Your task to perform on an android device: Clear the shopping cart on amazon. Add "macbook pro" to the cart on amazon, then select checkout. Image 0: 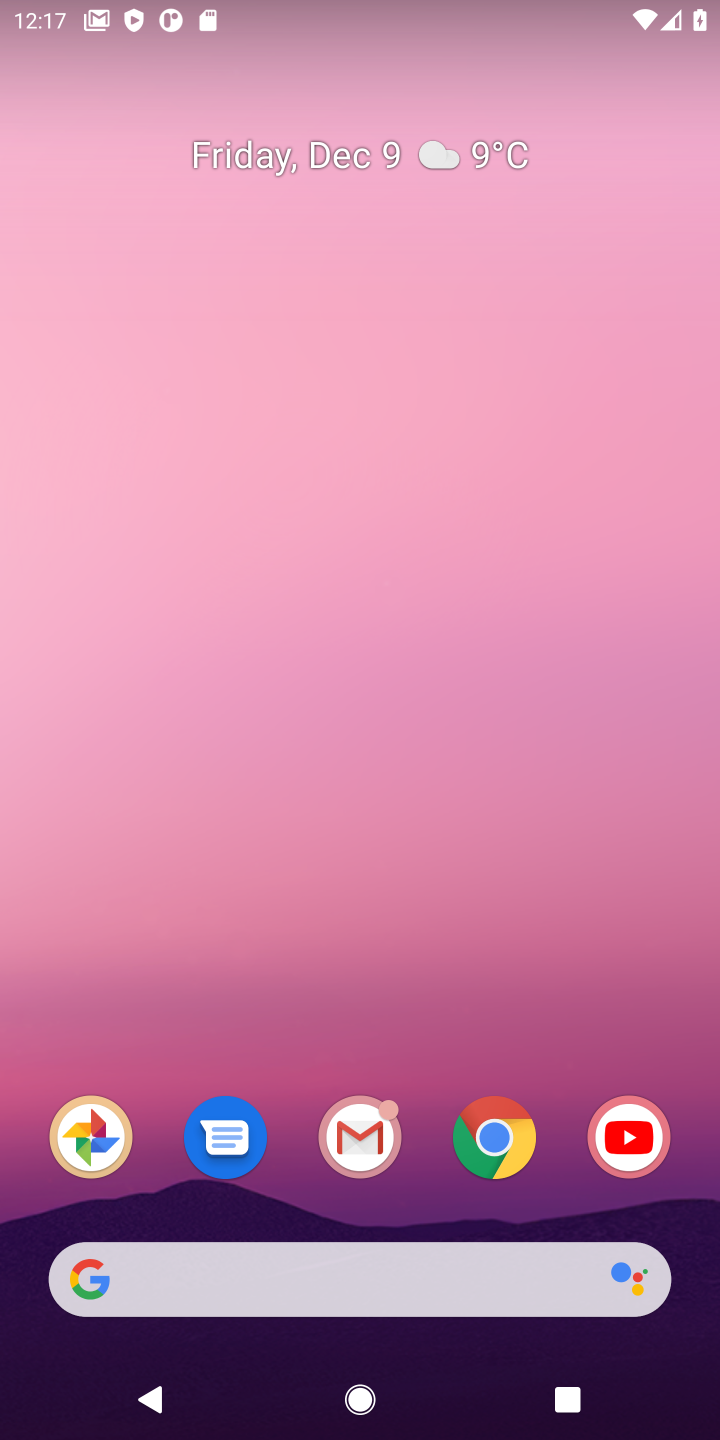
Step 0: click (262, 1284)
Your task to perform on an android device: Clear the shopping cart on amazon. Add "macbook pro" to the cart on amazon, then select checkout. Image 1: 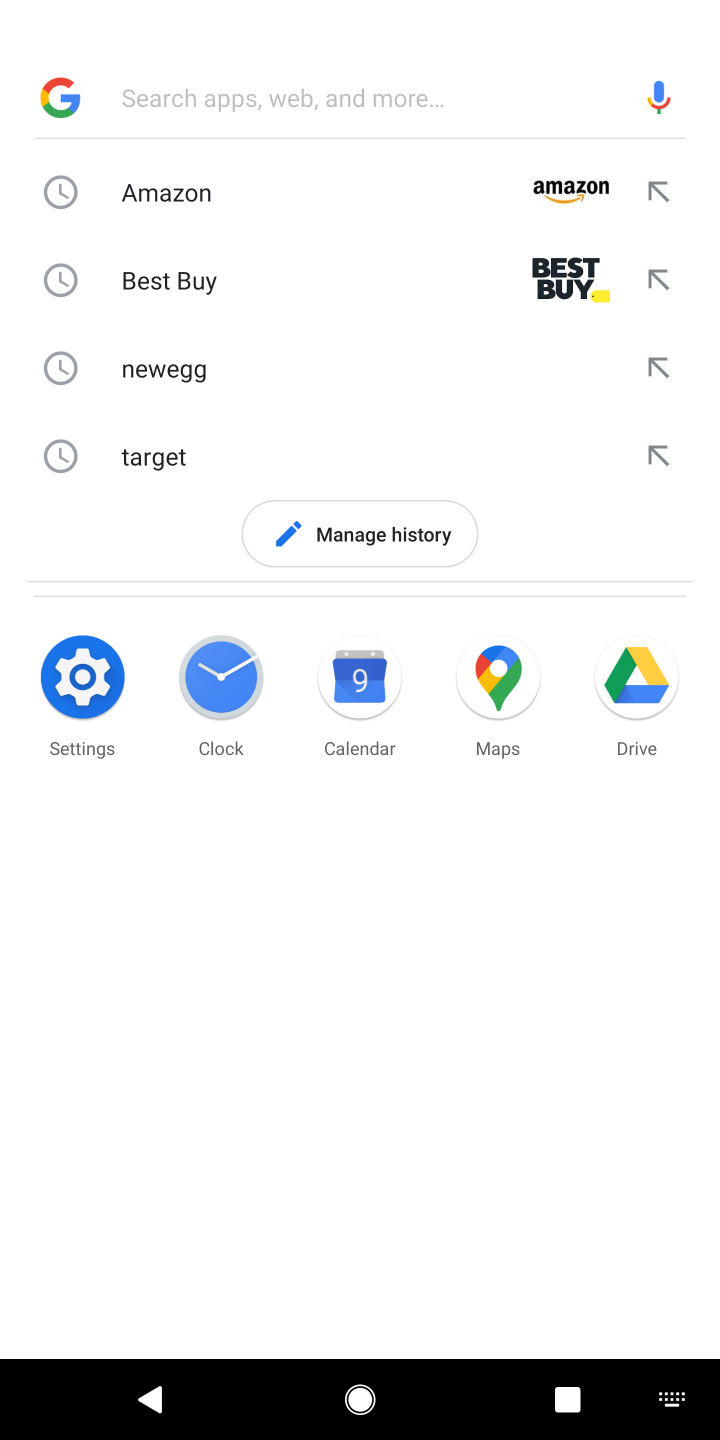
Step 1: click (424, 210)
Your task to perform on an android device: Clear the shopping cart on amazon. Add "macbook pro" to the cart on amazon, then select checkout. Image 2: 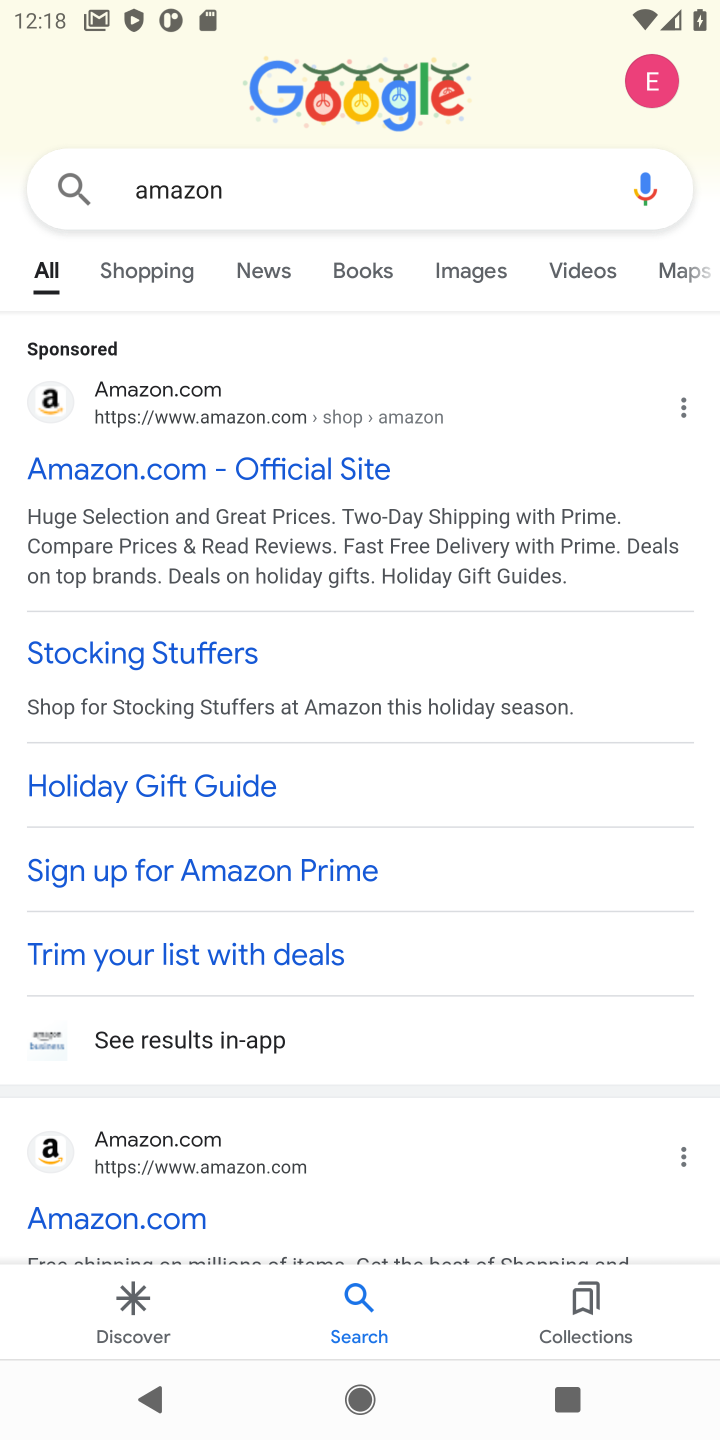
Step 2: click (154, 456)
Your task to perform on an android device: Clear the shopping cart on amazon. Add "macbook pro" to the cart on amazon, then select checkout. Image 3: 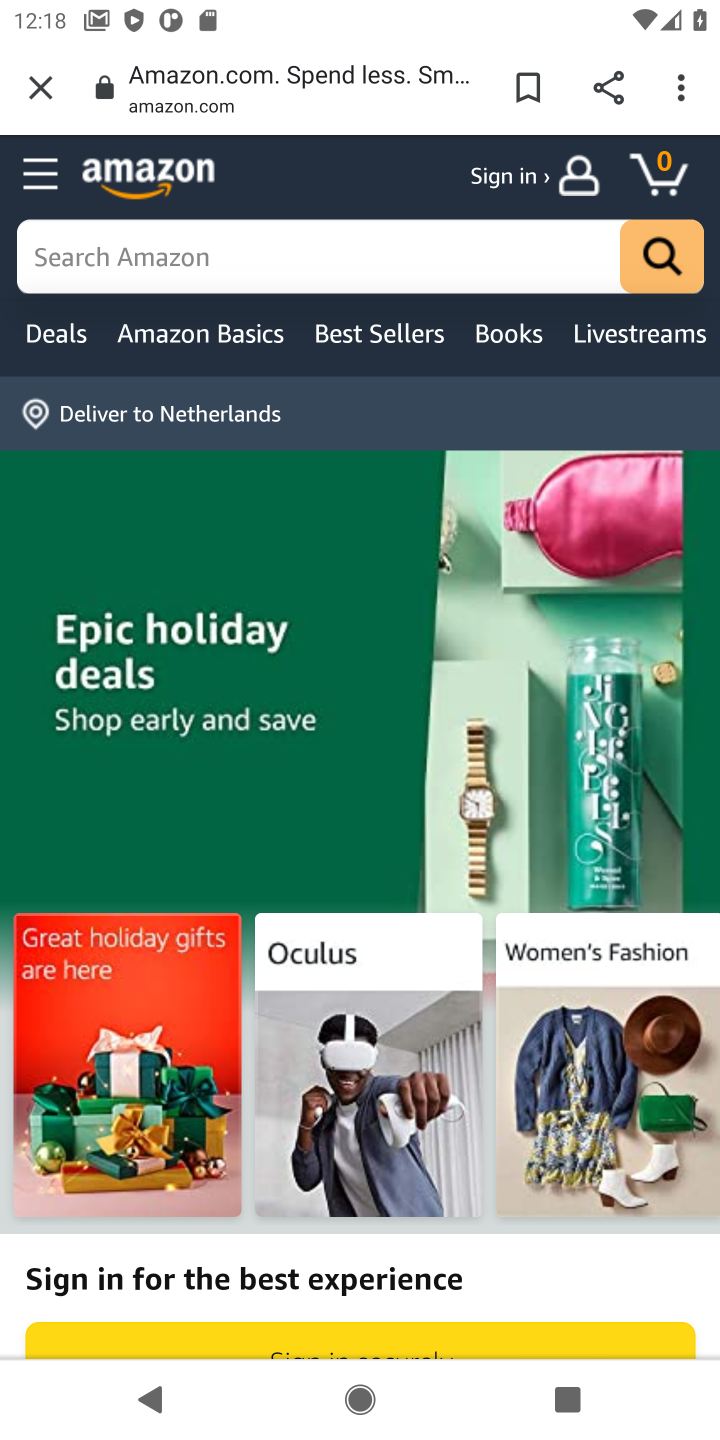
Step 3: click (374, 279)
Your task to perform on an android device: Clear the shopping cart on amazon. Add "macbook pro" to the cart on amazon, then select checkout. Image 4: 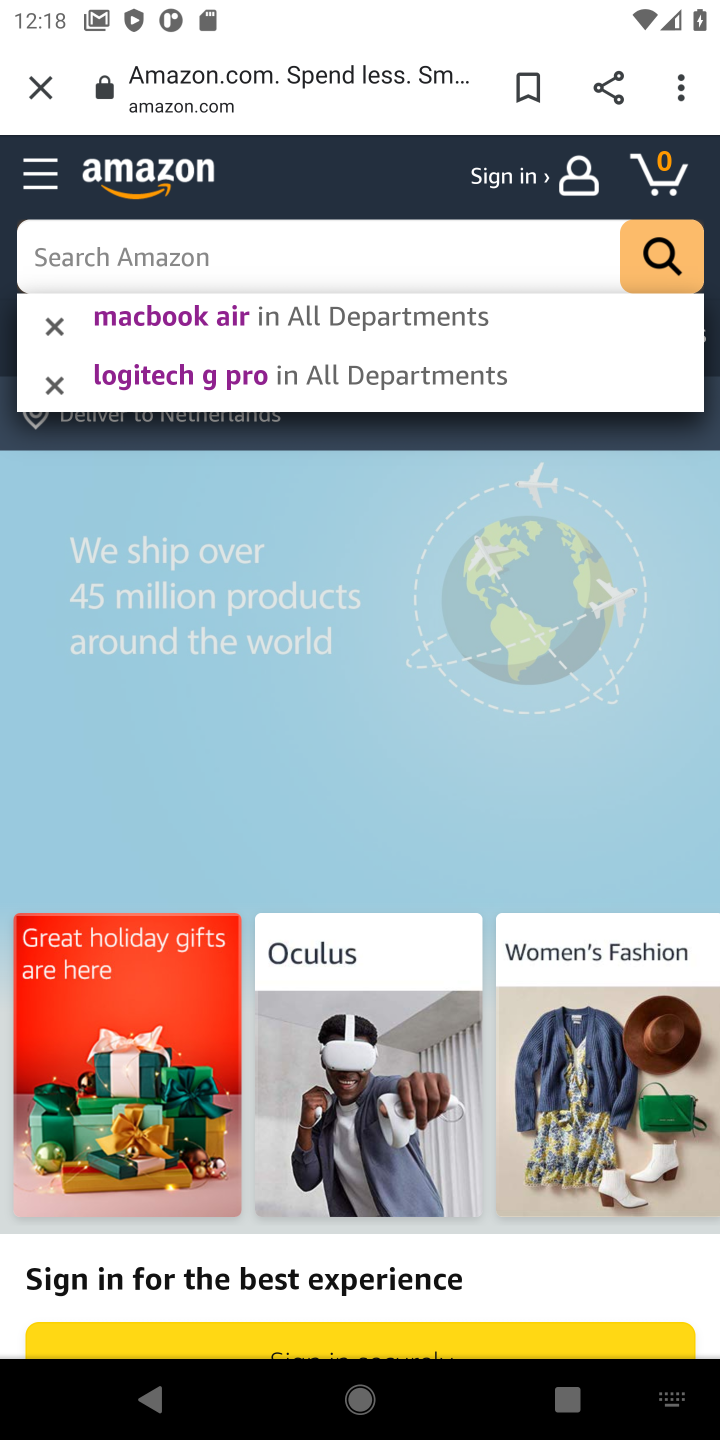
Step 4: type "macbook pro"
Your task to perform on an android device: Clear the shopping cart on amazon. Add "macbook pro" to the cart on amazon, then select checkout. Image 5: 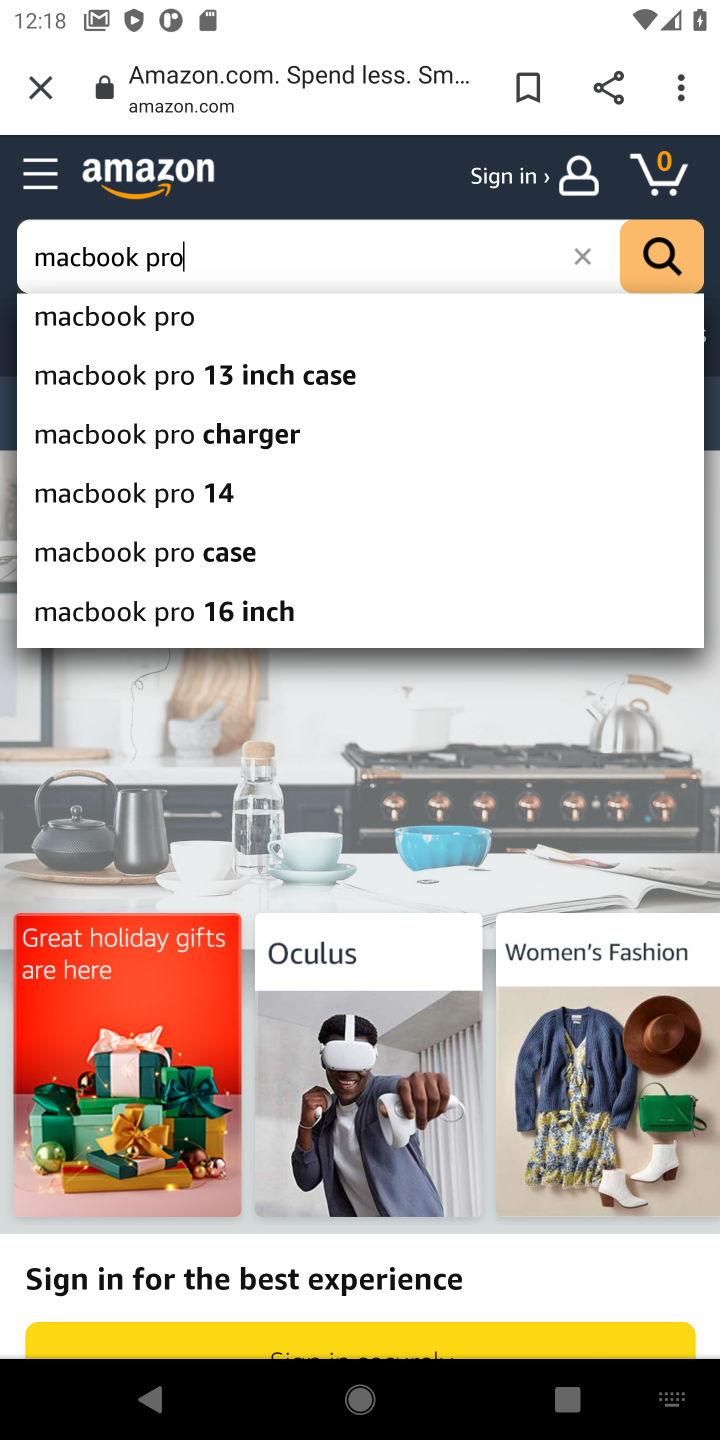
Step 5: click (152, 314)
Your task to perform on an android device: Clear the shopping cart on amazon. Add "macbook pro" to the cart on amazon, then select checkout. Image 6: 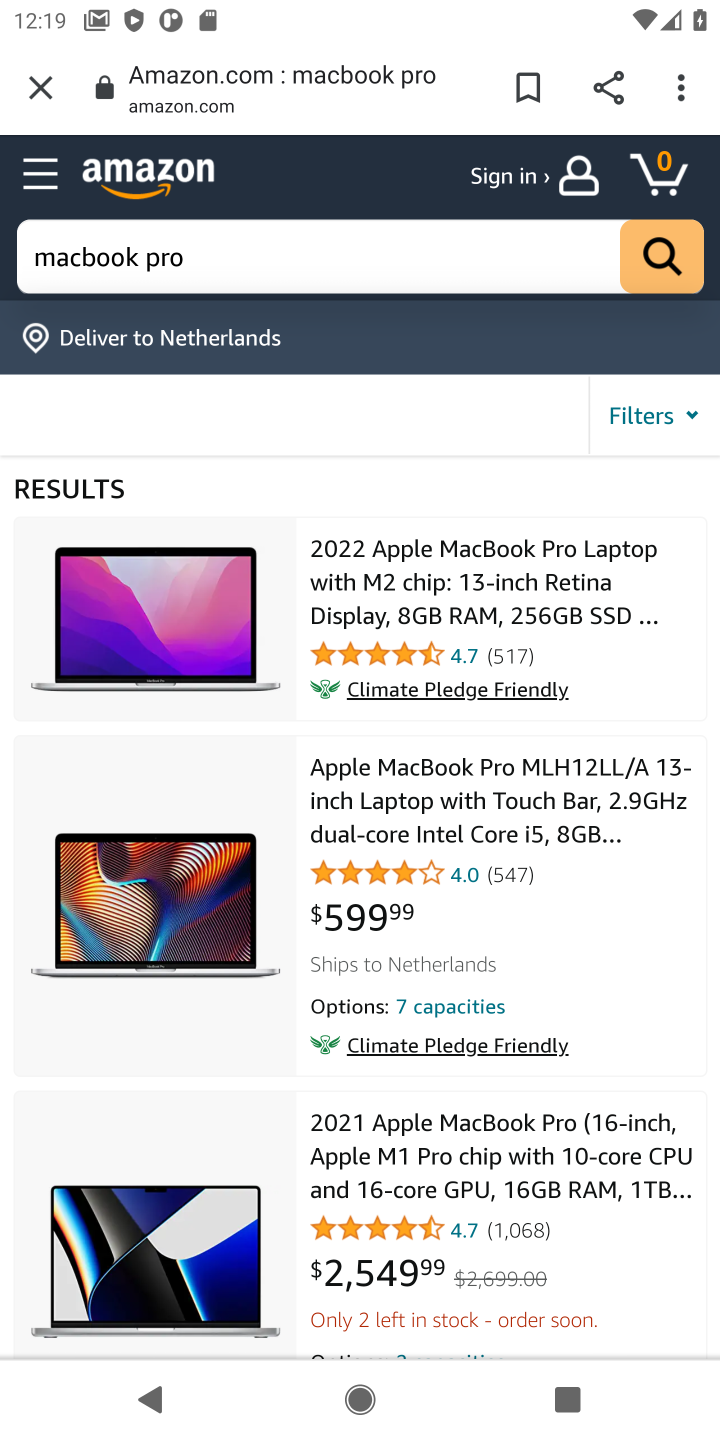
Step 6: click (377, 566)
Your task to perform on an android device: Clear the shopping cart on amazon. Add "macbook pro" to the cart on amazon, then select checkout. Image 7: 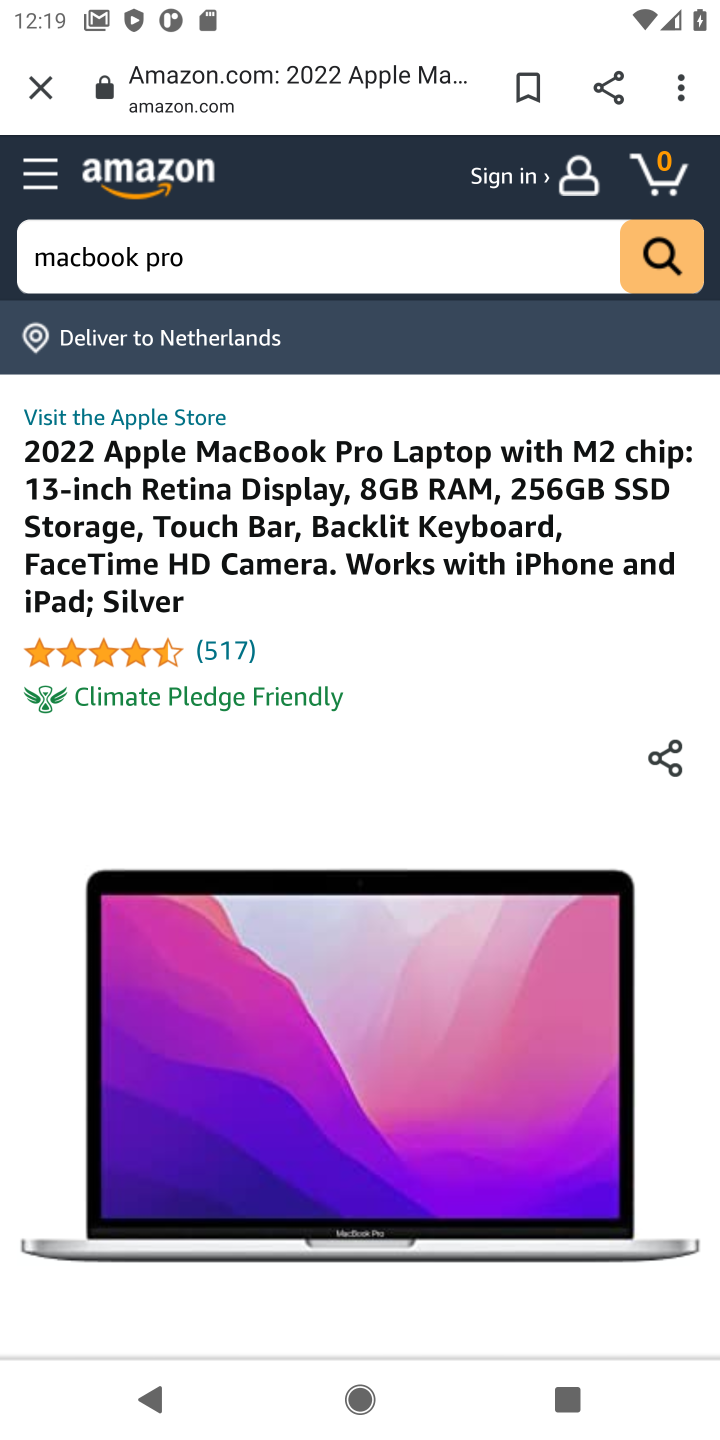
Step 7: drag from (435, 1170) to (366, 165)
Your task to perform on an android device: Clear the shopping cart on amazon. Add "macbook pro" to the cart on amazon, then select checkout. Image 8: 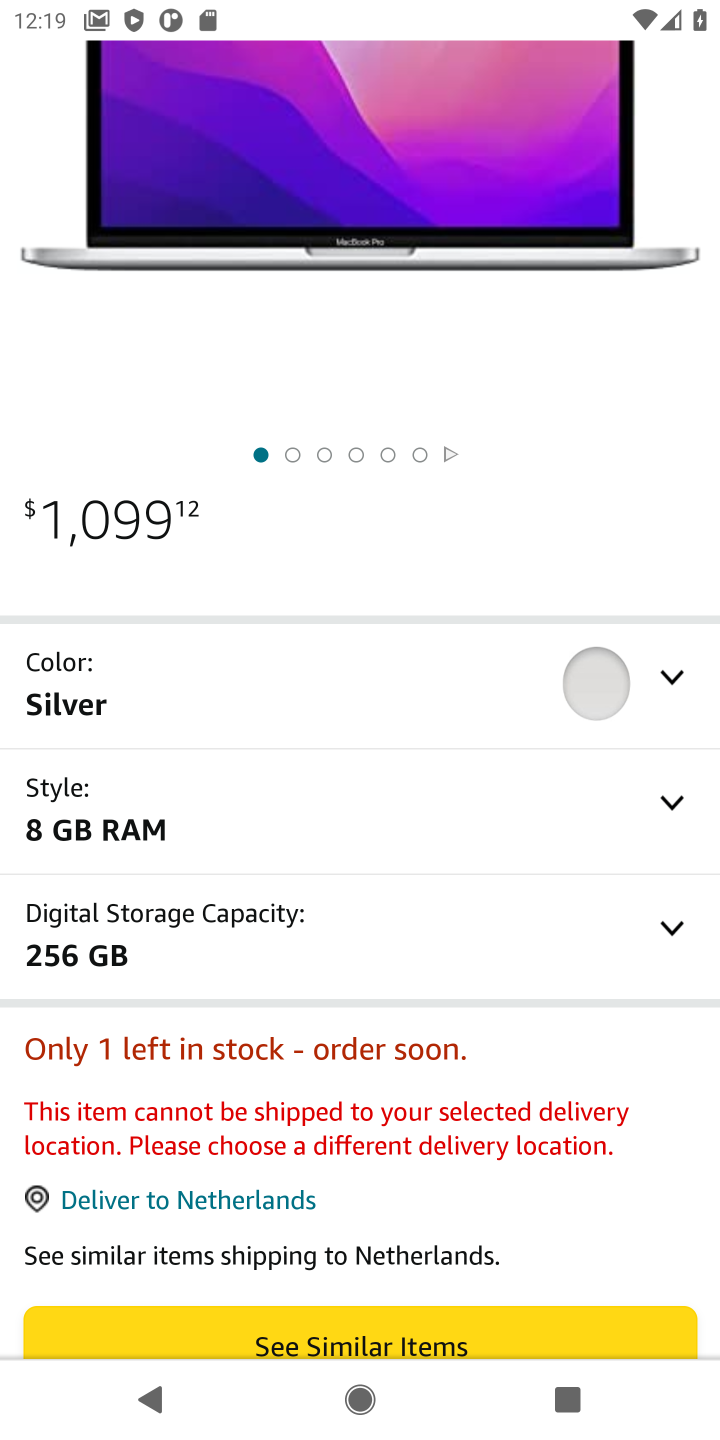
Step 8: drag from (403, 1307) to (351, 365)
Your task to perform on an android device: Clear the shopping cart on amazon. Add "macbook pro" to the cart on amazon, then select checkout. Image 9: 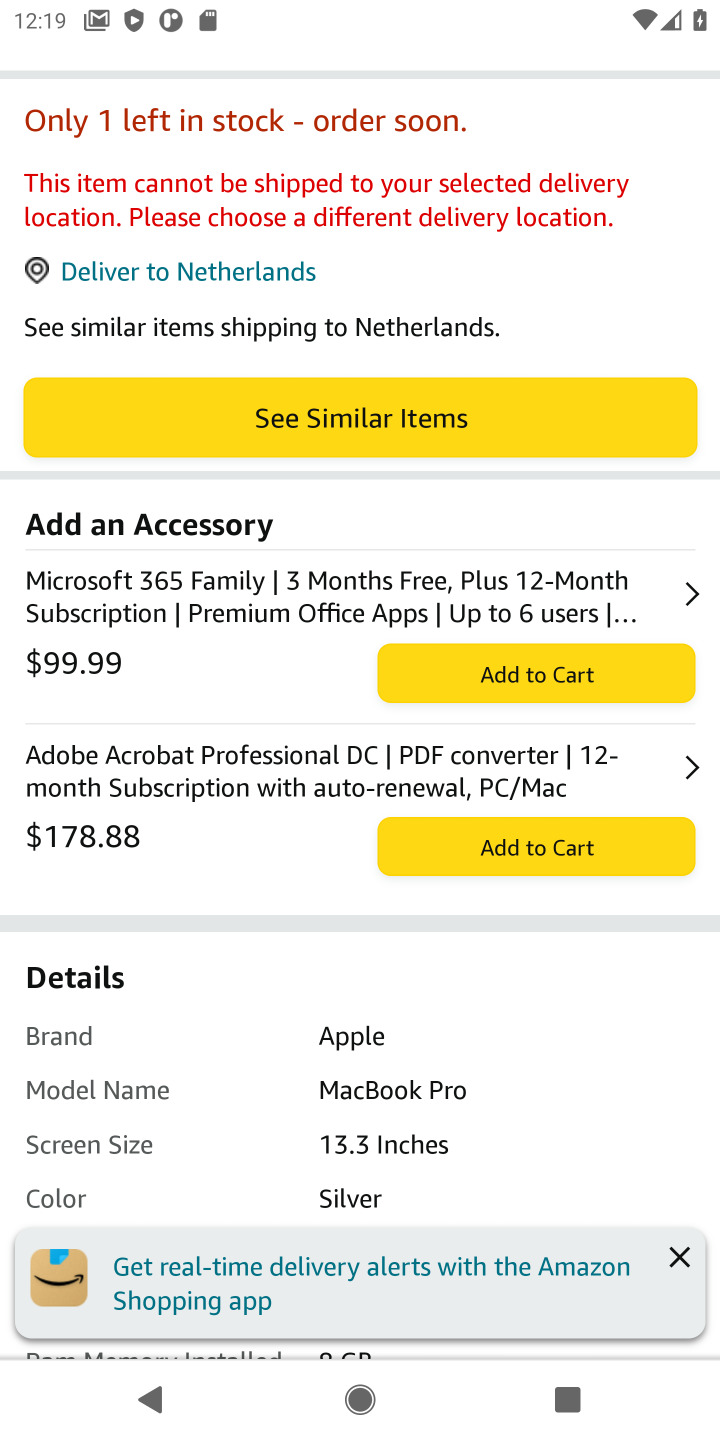
Step 9: click (565, 699)
Your task to perform on an android device: Clear the shopping cart on amazon. Add "macbook pro" to the cart on amazon, then select checkout. Image 10: 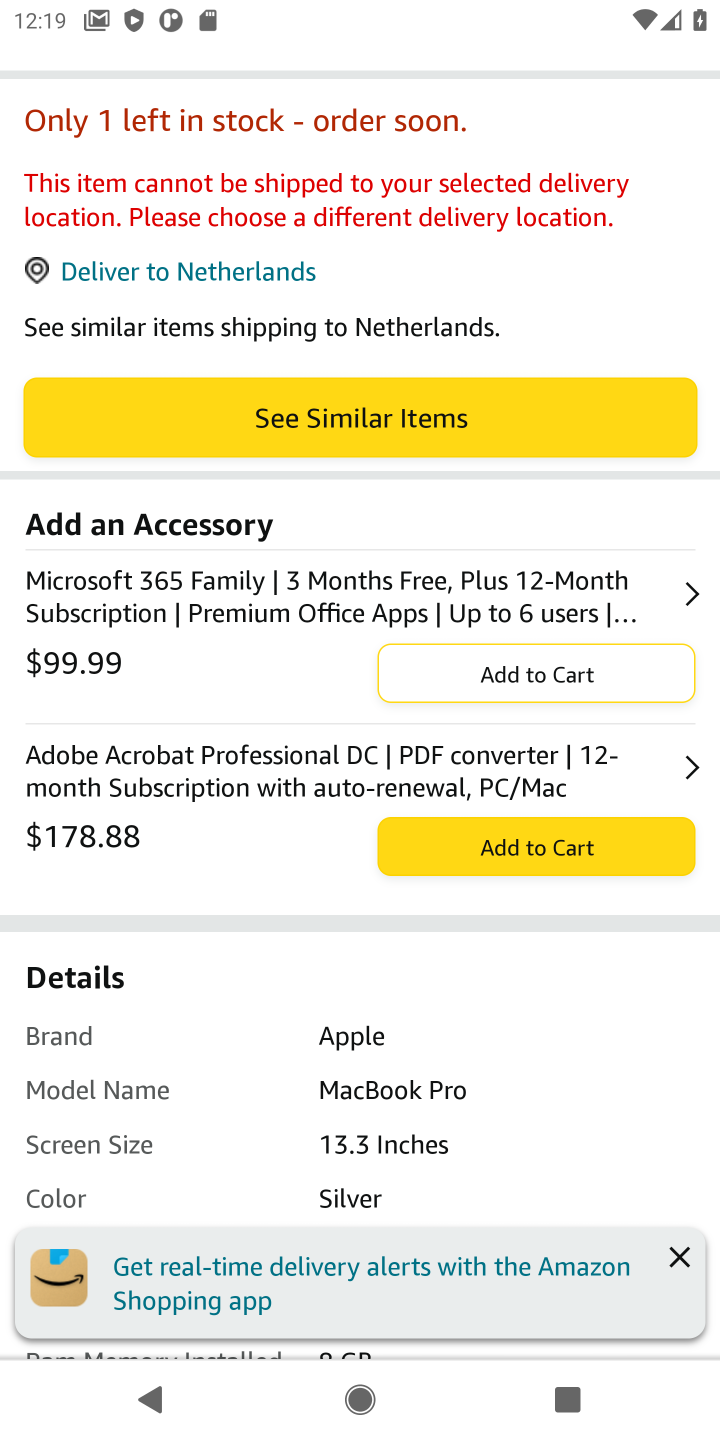
Step 10: click (599, 832)
Your task to perform on an android device: Clear the shopping cart on amazon. Add "macbook pro" to the cart on amazon, then select checkout. Image 11: 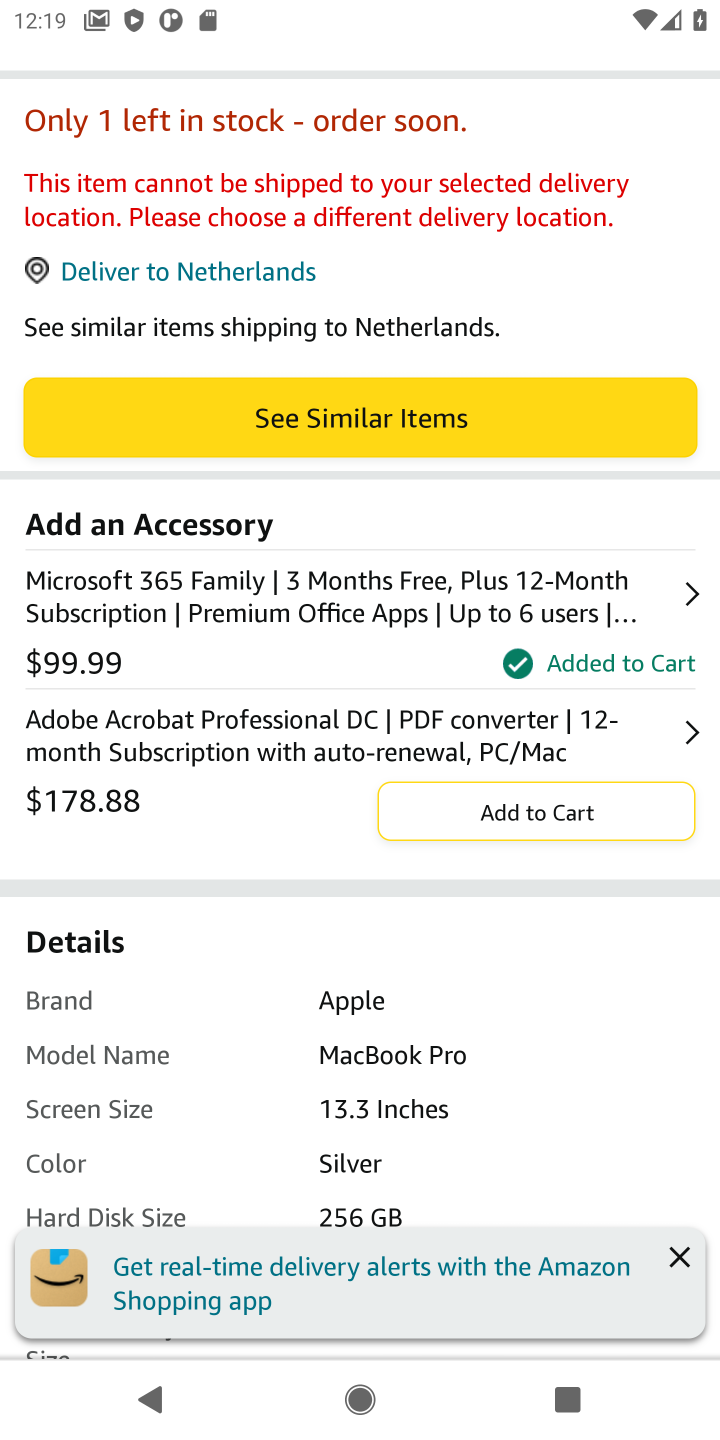
Step 11: task complete